Your task to perform on an android device: check battery use Image 0: 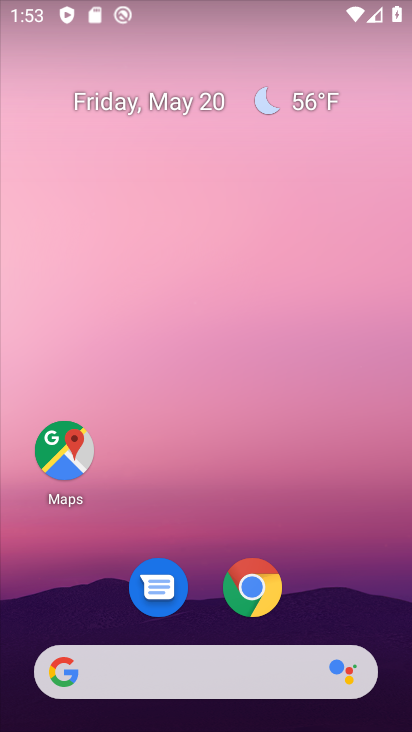
Step 0: drag from (338, 569) to (296, 211)
Your task to perform on an android device: check battery use Image 1: 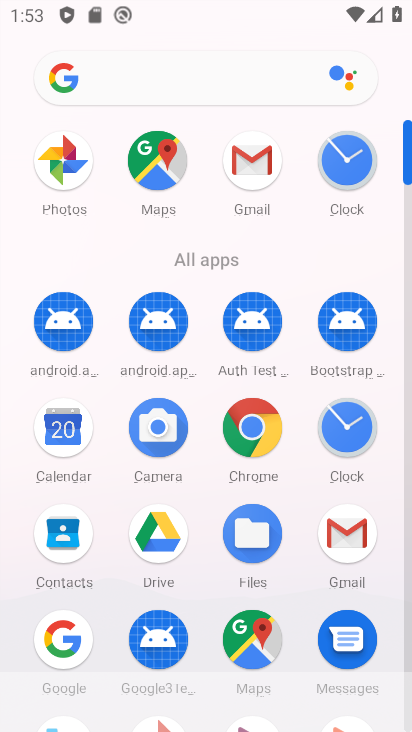
Step 1: drag from (204, 287) to (188, 50)
Your task to perform on an android device: check battery use Image 2: 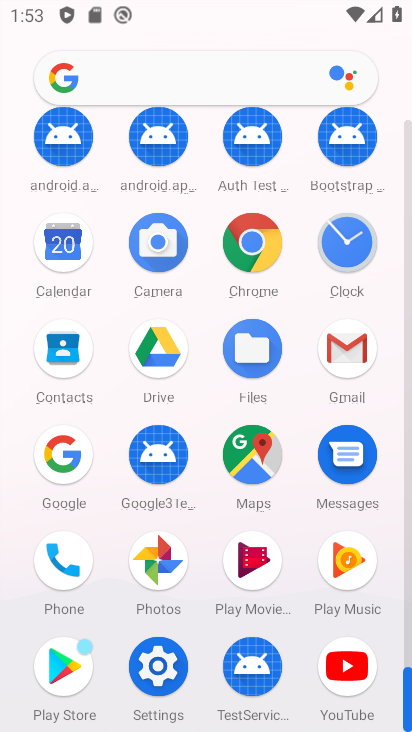
Step 2: click (157, 659)
Your task to perform on an android device: check battery use Image 3: 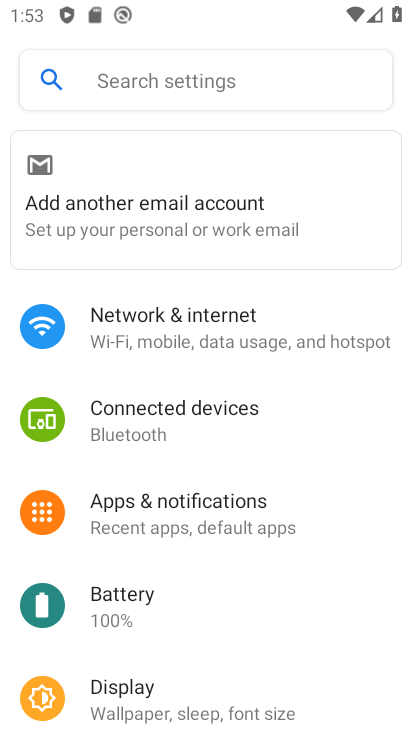
Step 3: click (175, 601)
Your task to perform on an android device: check battery use Image 4: 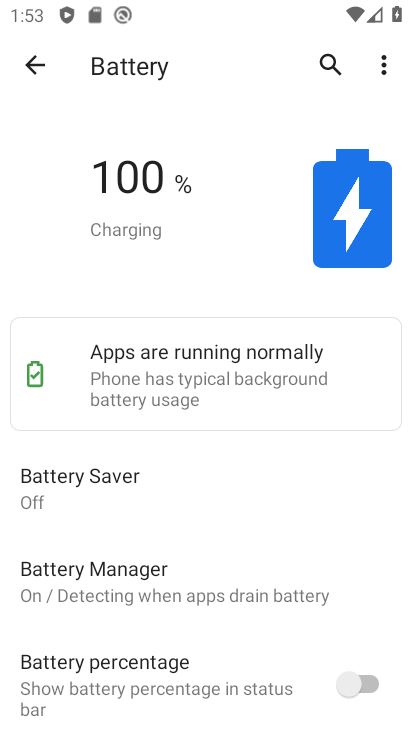
Step 4: click (380, 54)
Your task to perform on an android device: check battery use Image 5: 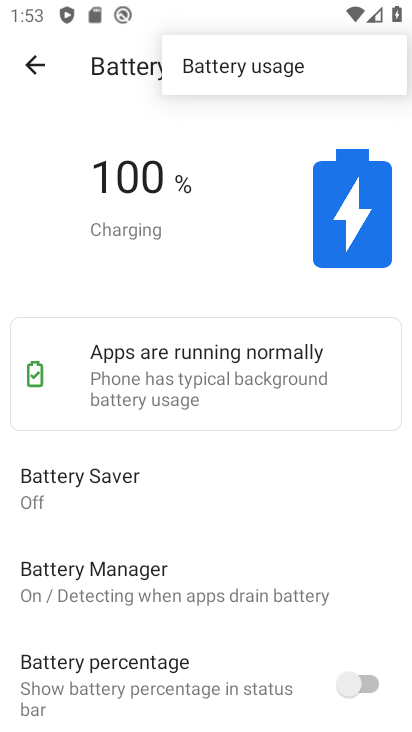
Step 5: click (288, 69)
Your task to perform on an android device: check battery use Image 6: 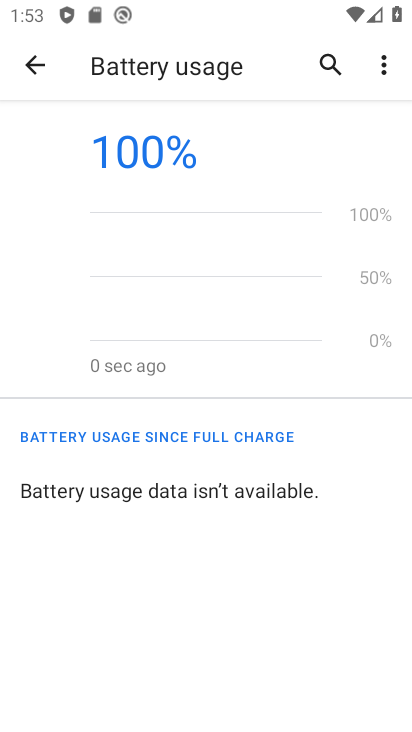
Step 6: task complete